Your task to perform on an android device: Open the stopwatch Image 0: 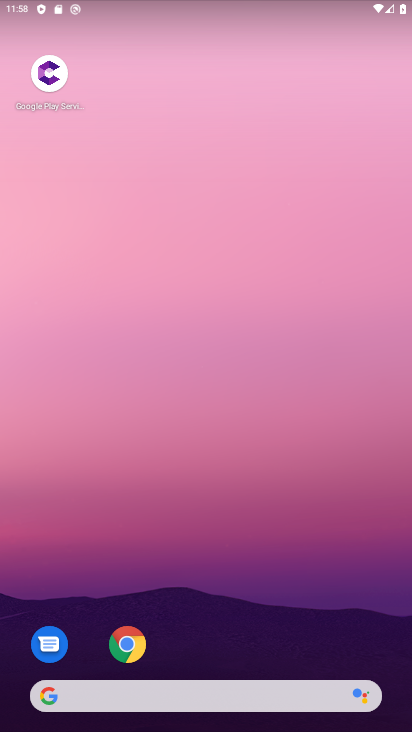
Step 0: drag from (277, 576) to (299, 195)
Your task to perform on an android device: Open the stopwatch Image 1: 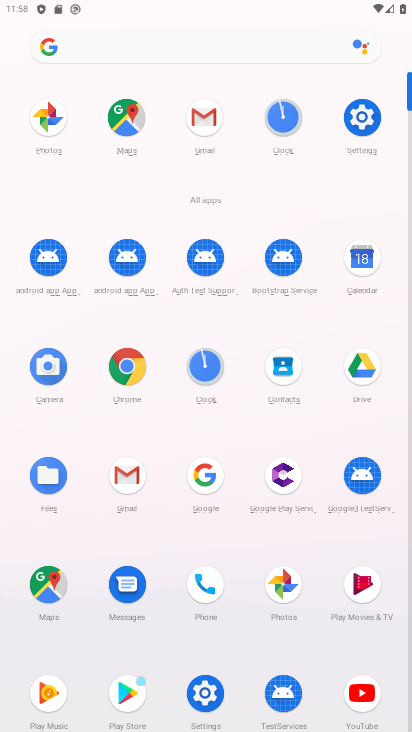
Step 1: drag from (258, 599) to (270, 392)
Your task to perform on an android device: Open the stopwatch Image 2: 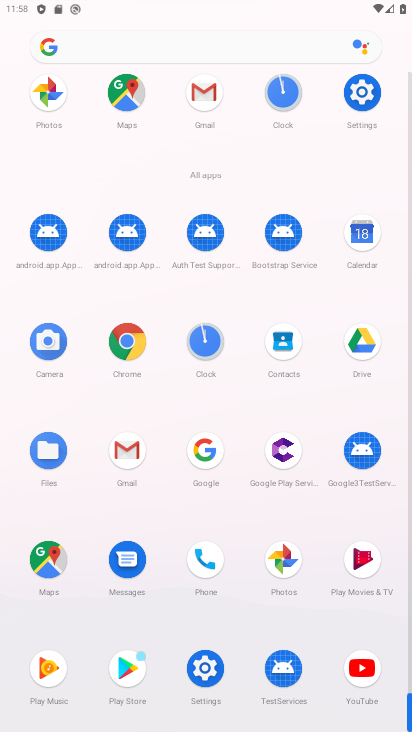
Step 2: click (210, 680)
Your task to perform on an android device: Open the stopwatch Image 3: 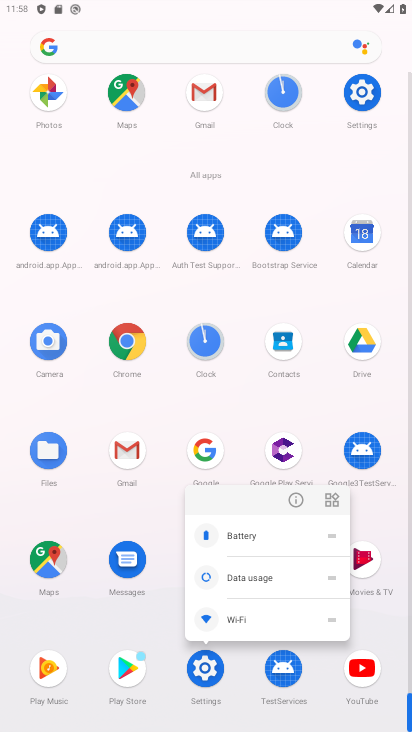
Step 3: click (212, 350)
Your task to perform on an android device: Open the stopwatch Image 4: 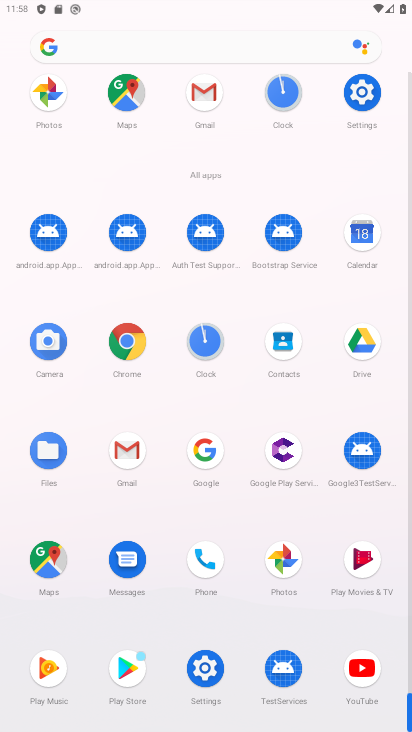
Step 4: click (209, 339)
Your task to perform on an android device: Open the stopwatch Image 5: 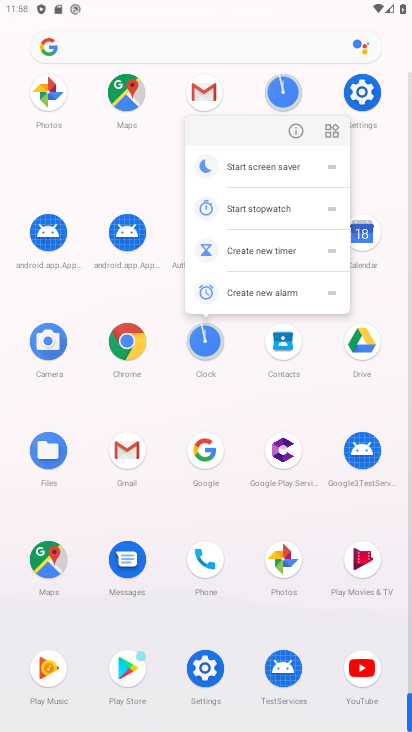
Step 5: click (204, 342)
Your task to perform on an android device: Open the stopwatch Image 6: 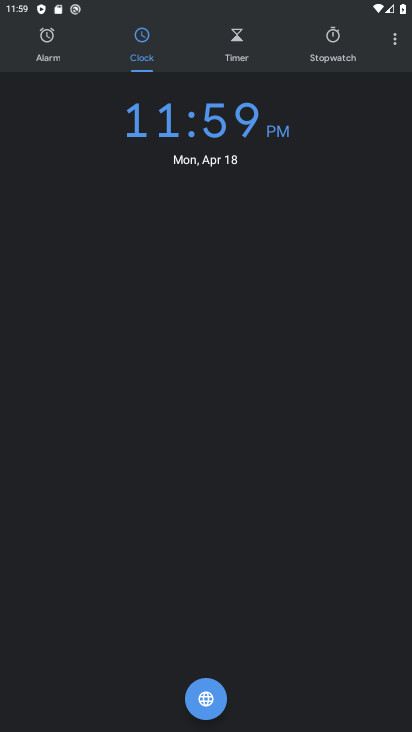
Step 6: click (336, 63)
Your task to perform on an android device: Open the stopwatch Image 7: 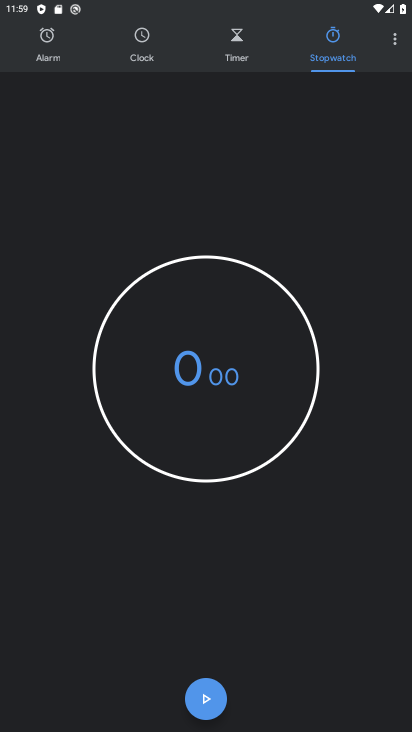
Step 7: task complete